Your task to perform on an android device: open wifi settings Image 0: 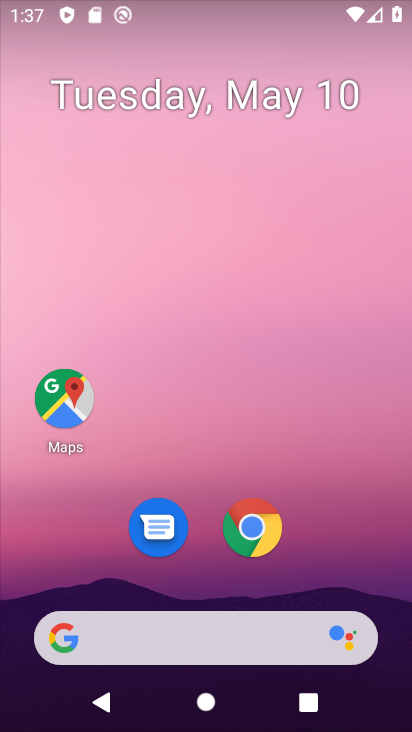
Step 0: drag from (149, 607) to (307, 39)
Your task to perform on an android device: open wifi settings Image 1: 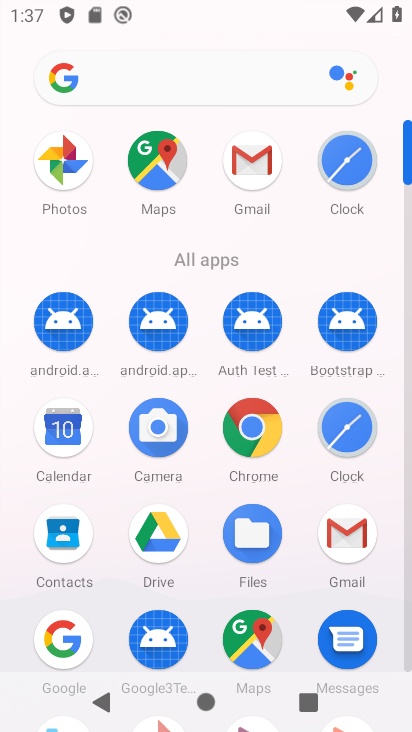
Step 1: drag from (181, 633) to (290, 280)
Your task to perform on an android device: open wifi settings Image 2: 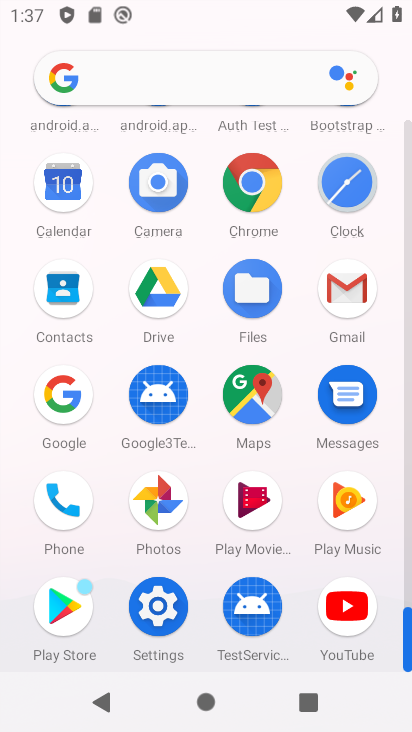
Step 2: click (153, 622)
Your task to perform on an android device: open wifi settings Image 3: 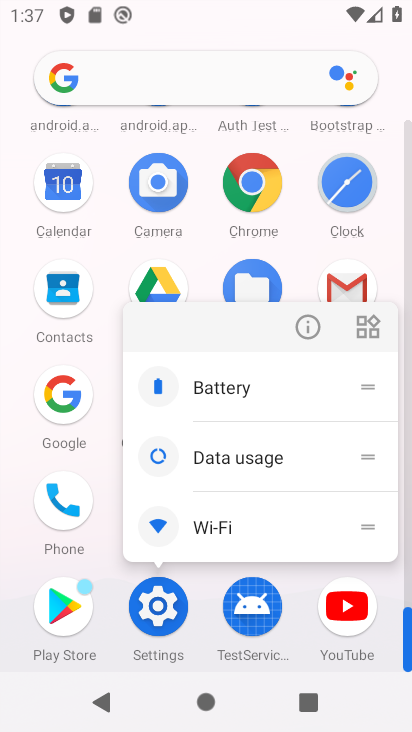
Step 3: click (164, 612)
Your task to perform on an android device: open wifi settings Image 4: 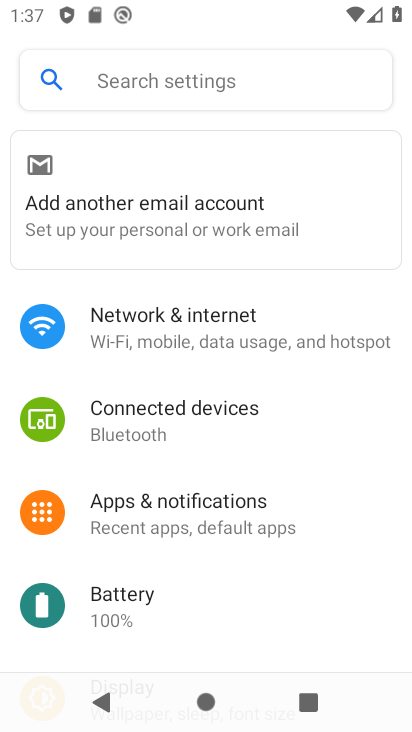
Step 4: click (179, 347)
Your task to perform on an android device: open wifi settings Image 5: 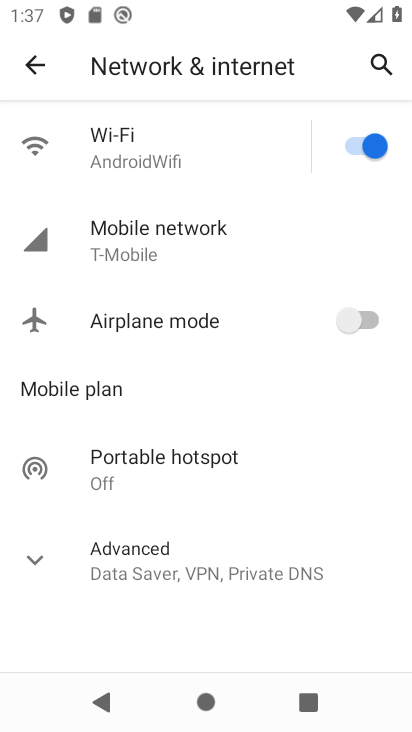
Step 5: click (209, 156)
Your task to perform on an android device: open wifi settings Image 6: 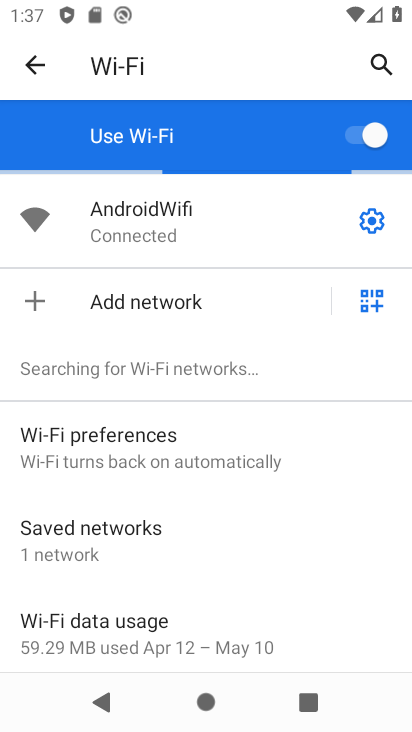
Step 6: task complete